Your task to perform on an android device: turn smart compose on in the gmail app Image 0: 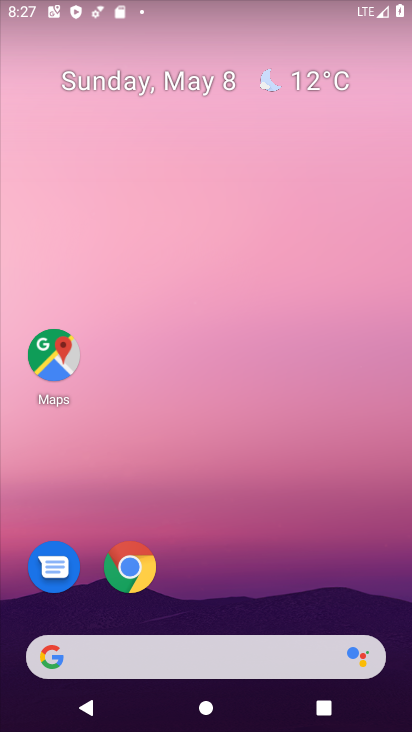
Step 0: drag from (252, 647) to (203, 14)
Your task to perform on an android device: turn smart compose on in the gmail app Image 1: 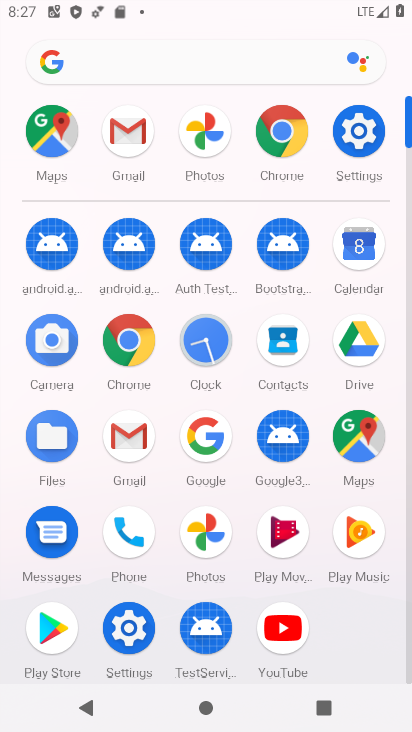
Step 1: click (133, 429)
Your task to perform on an android device: turn smart compose on in the gmail app Image 2: 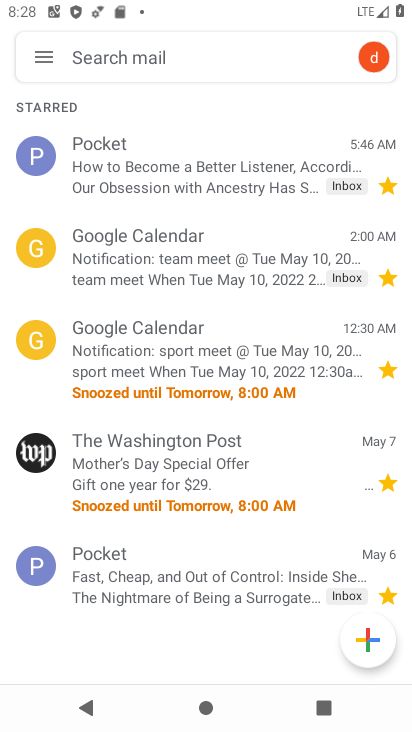
Step 2: click (39, 71)
Your task to perform on an android device: turn smart compose on in the gmail app Image 3: 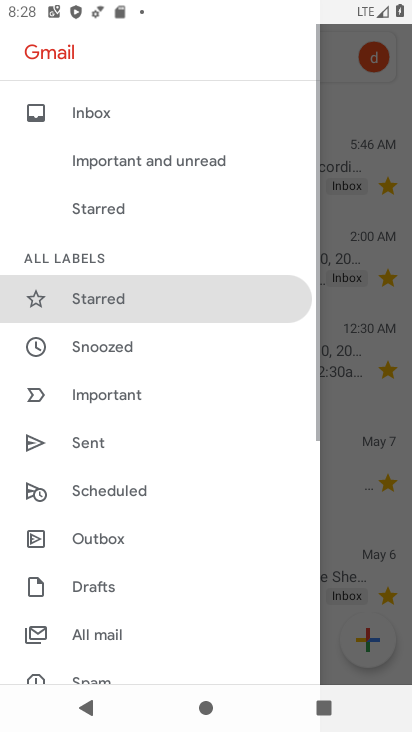
Step 3: drag from (149, 586) to (133, 48)
Your task to perform on an android device: turn smart compose on in the gmail app Image 4: 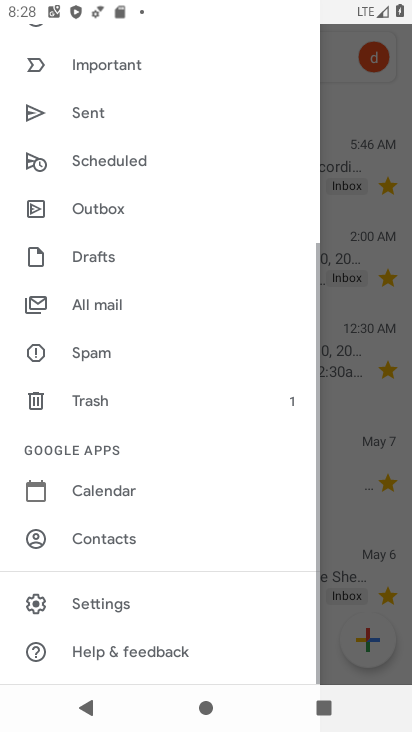
Step 4: click (103, 611)
Your task to perform on an android device: turn smart compose on in the gmail app Image 5: 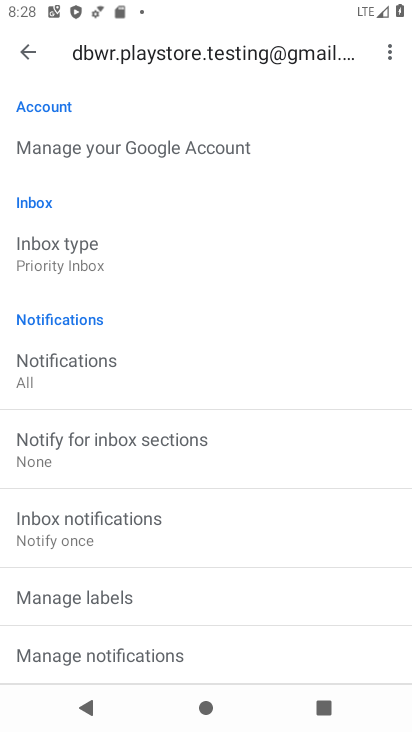
Step 5: task complete